Your task to perform on an android device: choose inbox layout in the gmail app Image 0: 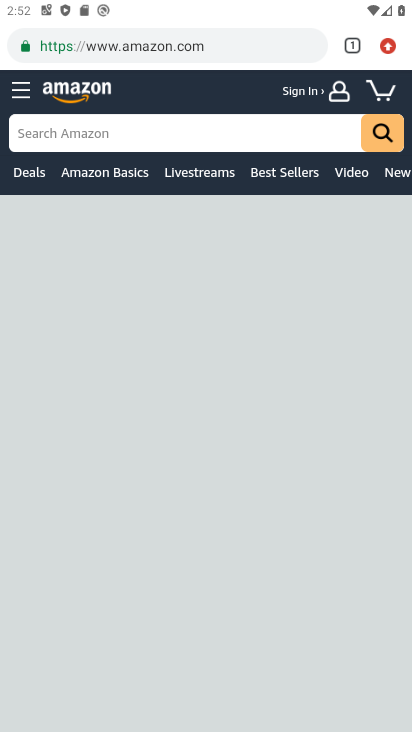
Step 0: press home button
Your task to perform on an android device: choose inbox layout in the gmail app Image 1: 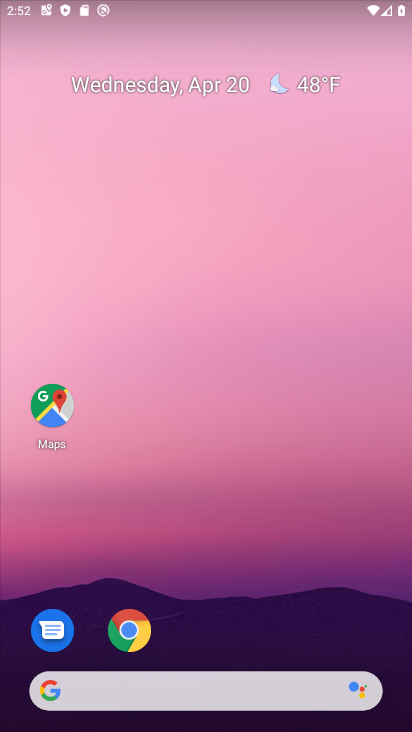
Step 1: drag from (214, 701) to (206, 14)
Your task to perform on an android device: choose inbox layout in the gmail app Image 2: 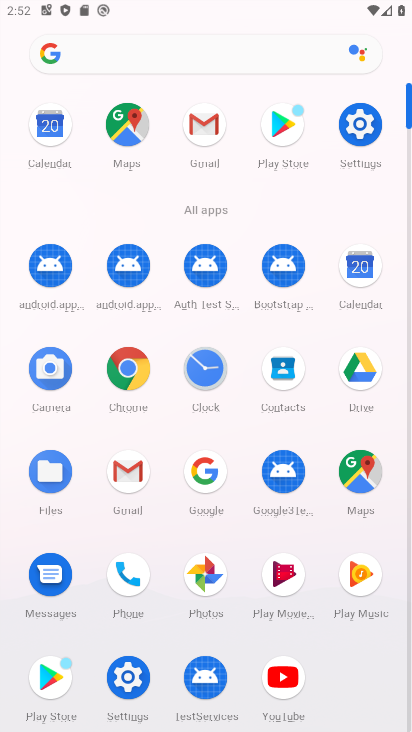
Step 2: click (188, 141)
Your task to perform on an android device: choose inbox layout in the gmail app Image 3: 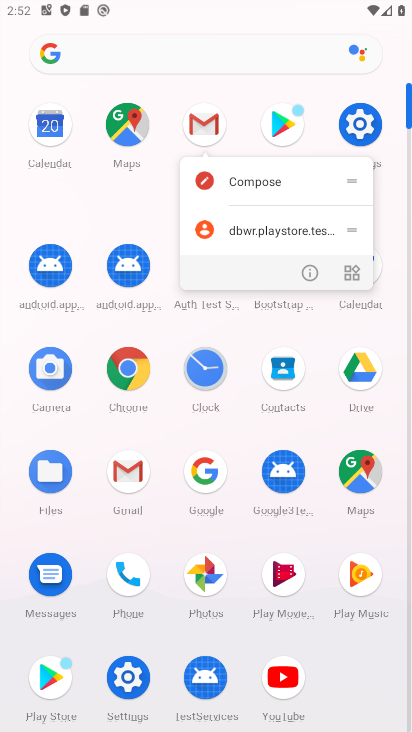
Step 3: click (208, 129)
Your task to perform on an android device: choose inbox layout in the gmail app Image 4: 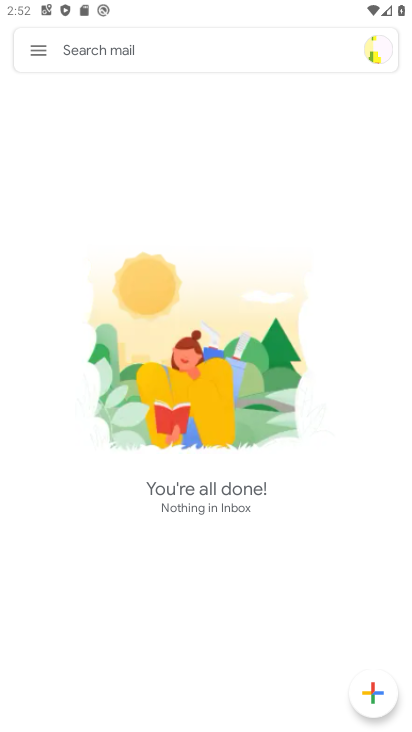
Step 4: click (33, 59)
Your task to perform on an android device: choose inbox layout in the gmail app Image 5: 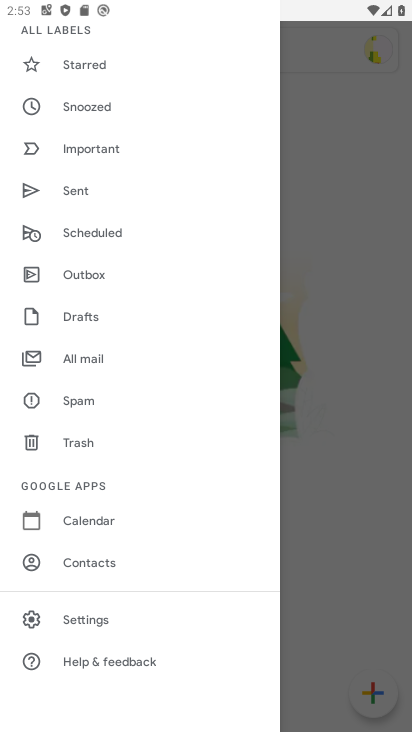
Step 5: click (90, 621)
Your task to perform on an android device: choose inbox layout in the gmail app Image 6: 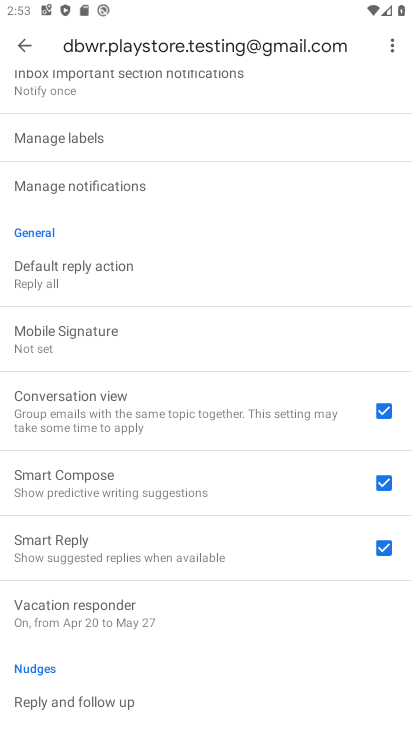
Step 6: drag from (283, 106) to (244, 423)
Your task to perform on an android device: choose inbox layout in the gmail app Image 7: 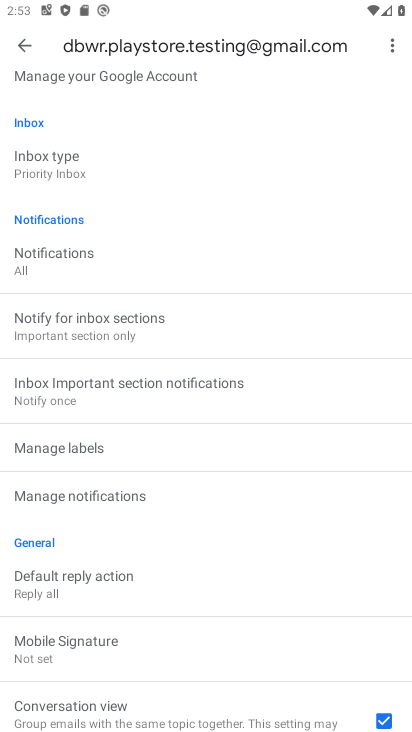
Step 7: click (63, 174)
Your task to perform on an android device: choose inbox layout in the gmail app Image 8: 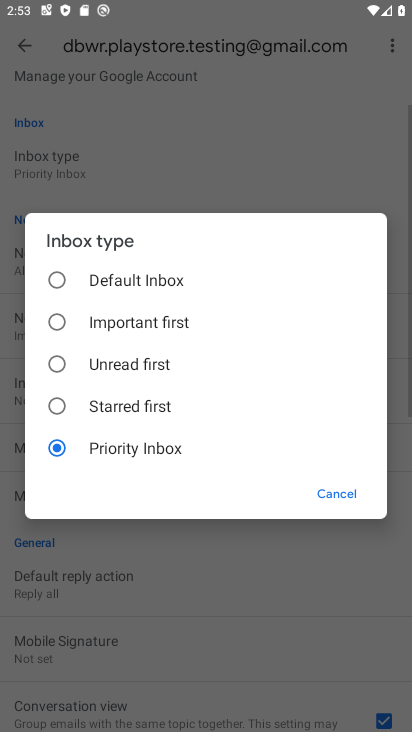
Step 8: click (193, 284)
Your task to perform on an android device: choose inbox layout in the gmail app Image 9: 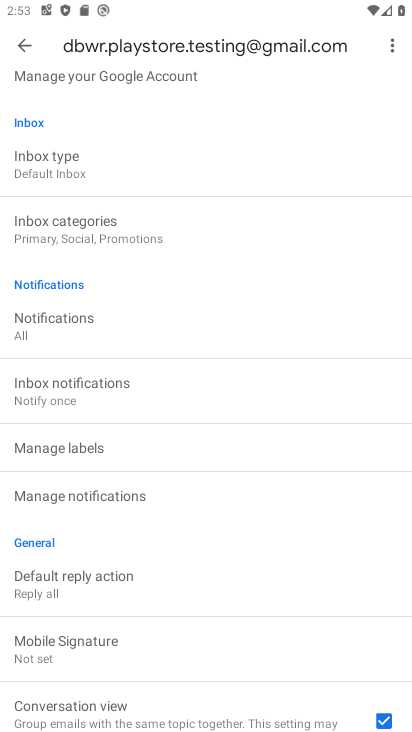
Step 9: task complete